Your task to perform on an android device: install app "YouTube Kids" Image 0: 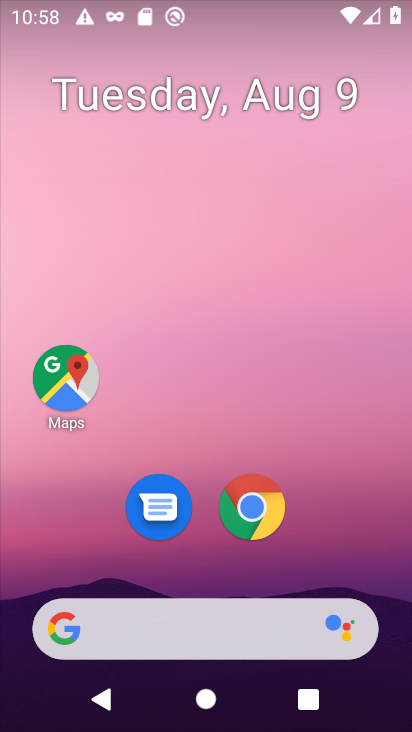
Step 0: drag from (145, 640) to (211, 123)
Your task to perform on an android device: install app "YouTube Kids" Image 1: 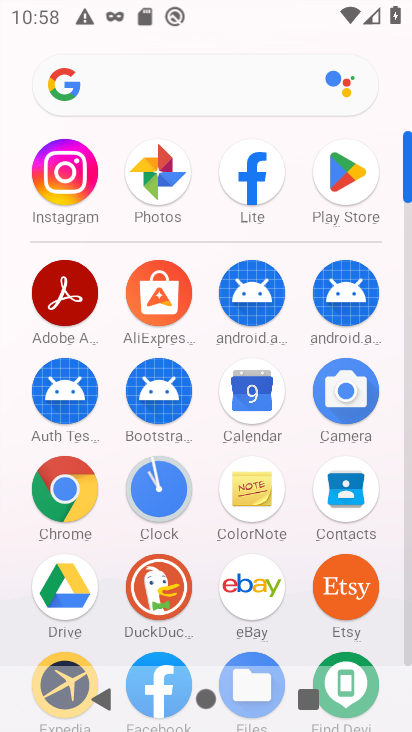
Step 1: click (346, 175)
Your task to perform on an android device: install app "YouTube Kids" Image 2: 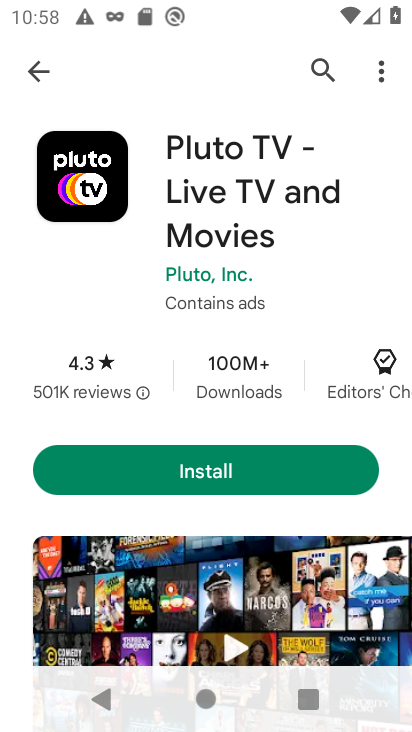
Step 2: click (315, 71)
Your task to perform on an android device: install app "YouTube Kids" Image 3: 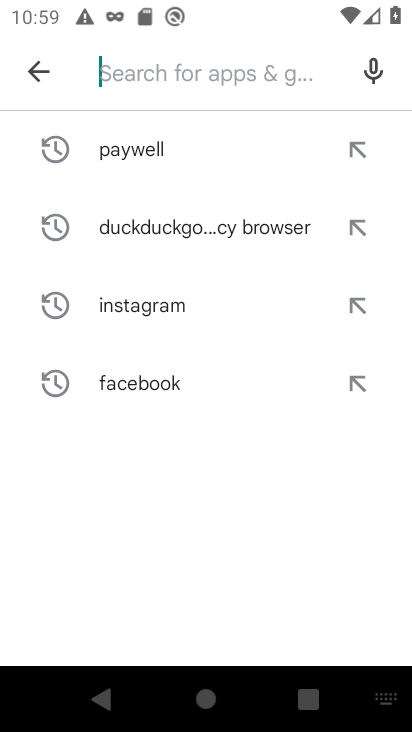
Step 3: type "YouTube Kids"
Your task to perform on an android device: install app "YouTube Kids" Image 4: 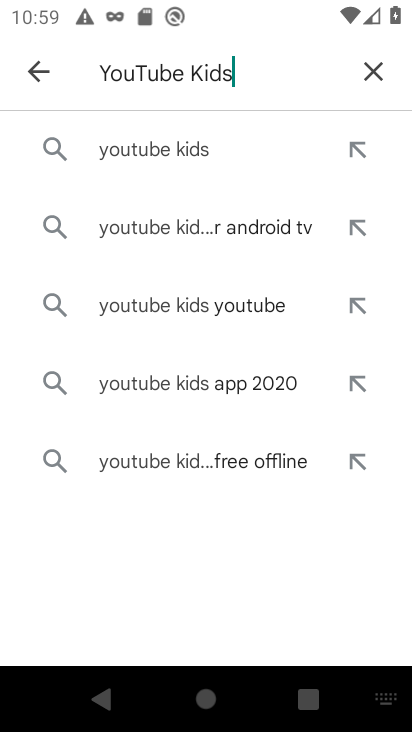
Step 4: click (160, 151)
Your task to perform on an android device: install app "YouTube Kids" Image 5: 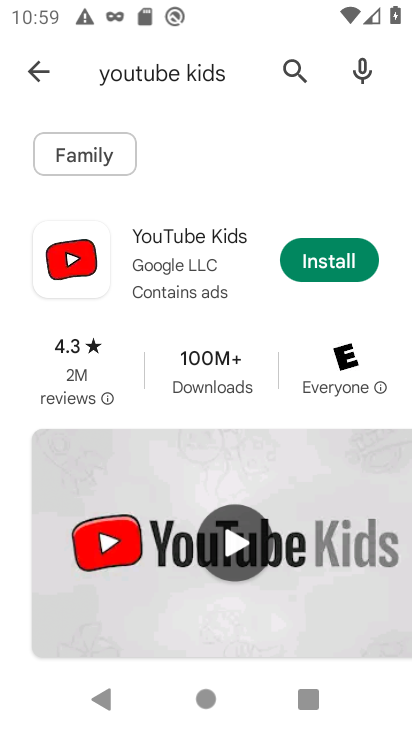
Step 5: click (333, 265)
Your task to perform on an android device: install app "YouTube Kids" Image 6: 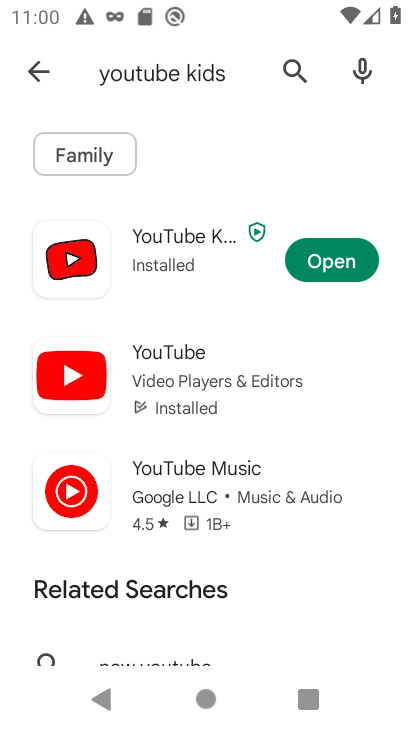
Step 6: task complete